Your task to perform on an android device: turn off location Image 0: 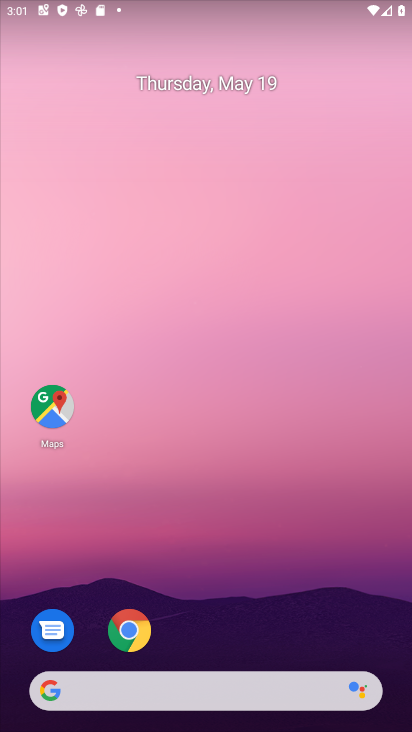
Step 0: drag from (382, 633) to (340, 59)
Your task to perform on an android device: turn off location Image 1: 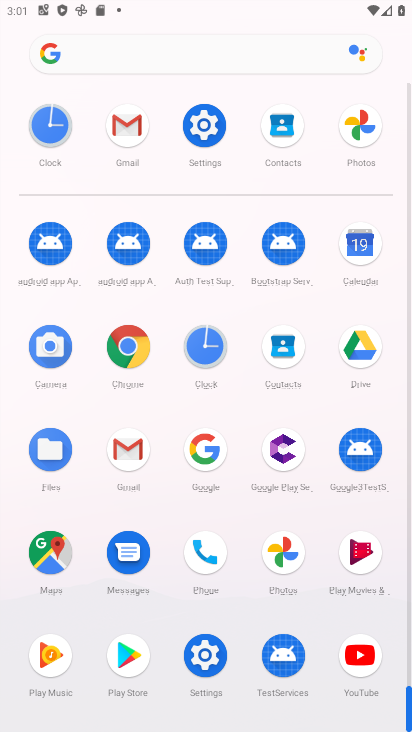
Step 1: click (205, 665)
Your task to perform on an android device: turn off location Image 2: 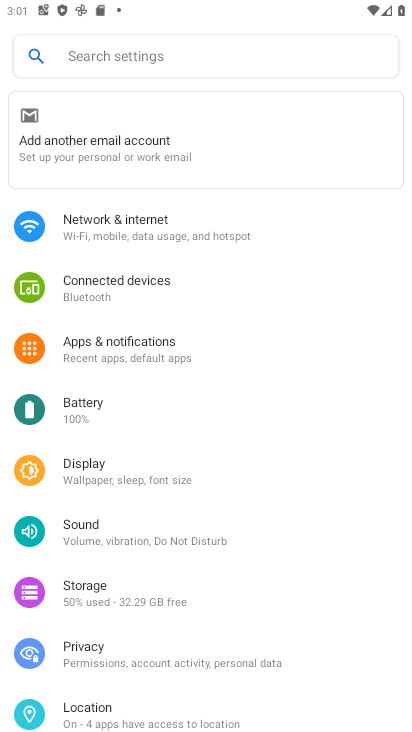
Step 2: drag from (283, 699) to (277, 253)
Your task to perform on an android device: turn off location Image 3: 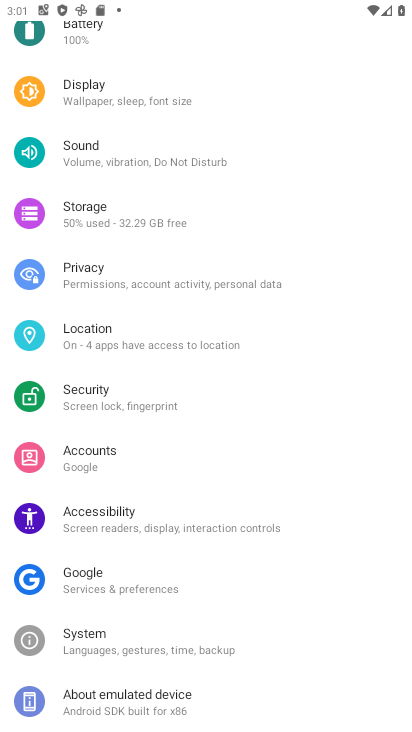
Step 3: click (89, 326)
Your task to perform on an android device: turn off location Image 4: 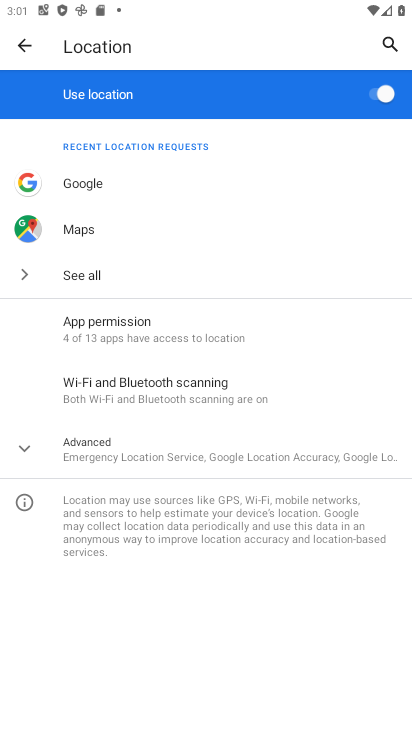
Step 4: click (369, 92)
Your task to perform on an android device: turn off location Image 5: 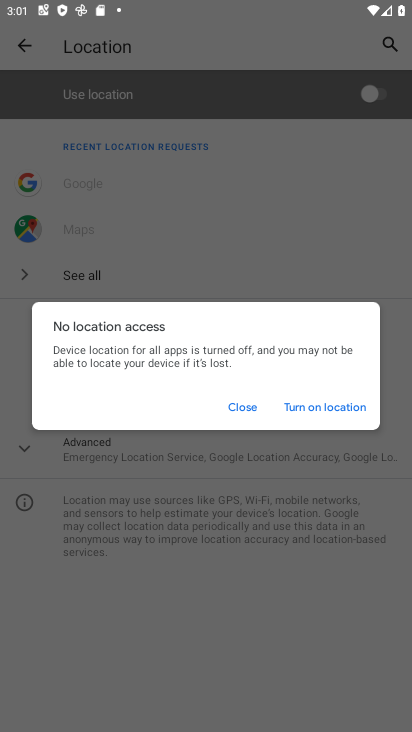
Step 5: click (232, 403)
Your task to perform on an android device: turn off location Image 6: 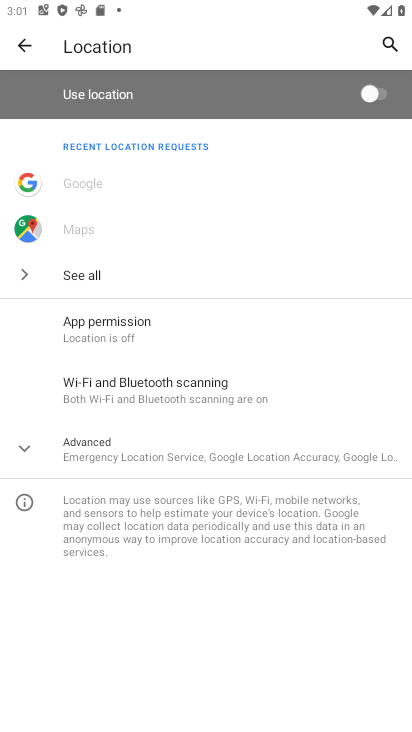
Step 6: task complete